Your task to perform on an android device: check out phone information Image 0: 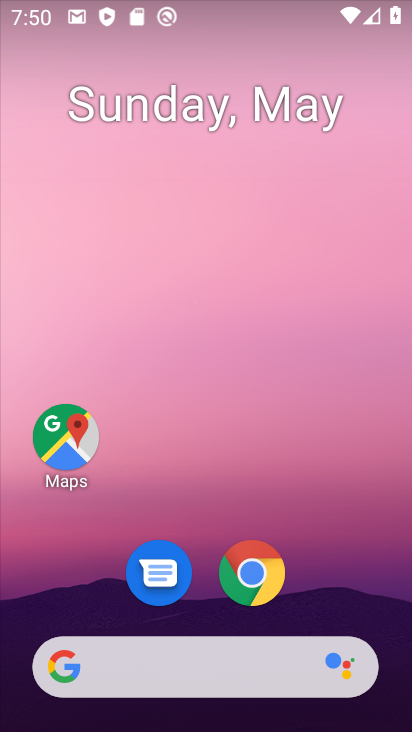
Step 0: drag from (215, 499) to (211, 9)
Your task to perform on an android device: check out phone information Image 1: 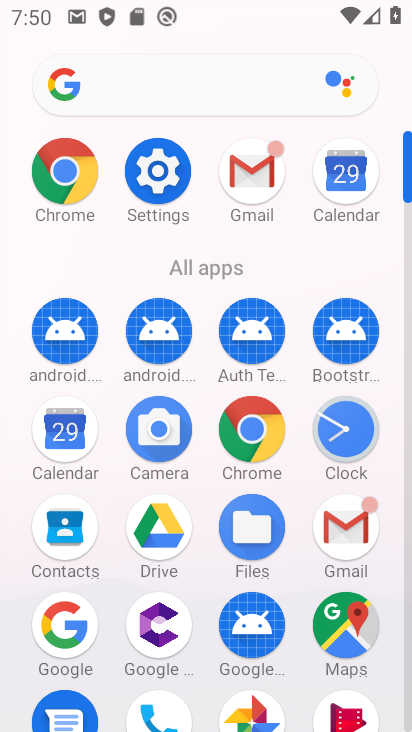
Step 1: drag from (215, 515) to (221, 243)
Your task to perform on an android device: check out phone information Image 2: 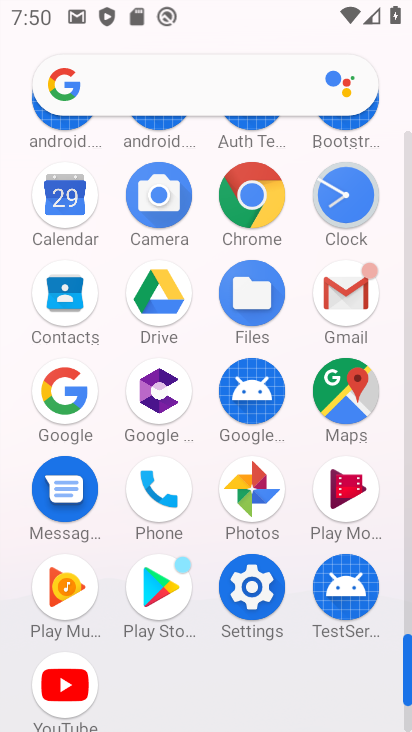
Step 2: click (156, 475)
Your task to perform on an android device: check out phone information Image 3: 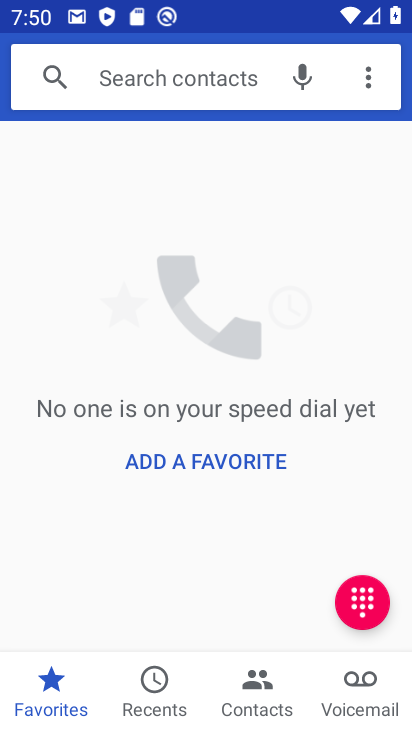
Step 3: click (365, 64)
Your task to perform on an android device: check out phone information Image 4: 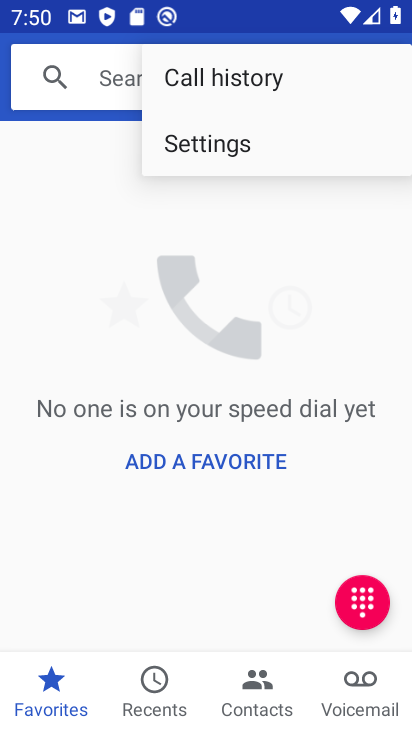
Step 4: click (330, 141)
Your task to perform on an android device: check out phone information Image 5: 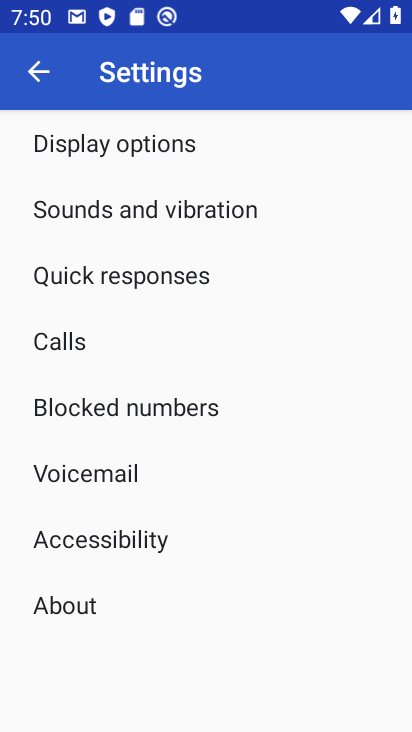
Step 5: click (88, 608)
Your task to perform on an android device: check out phone information Image 6: 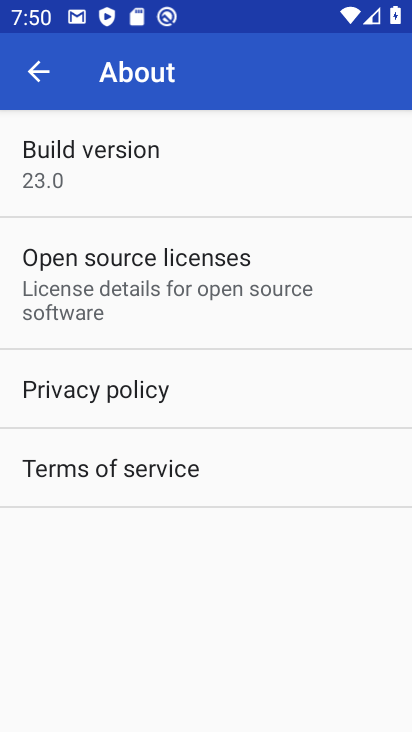
Step 6: task complete